Your task to perform on an android device: toggle priority inbox in the gmail app Image 0: 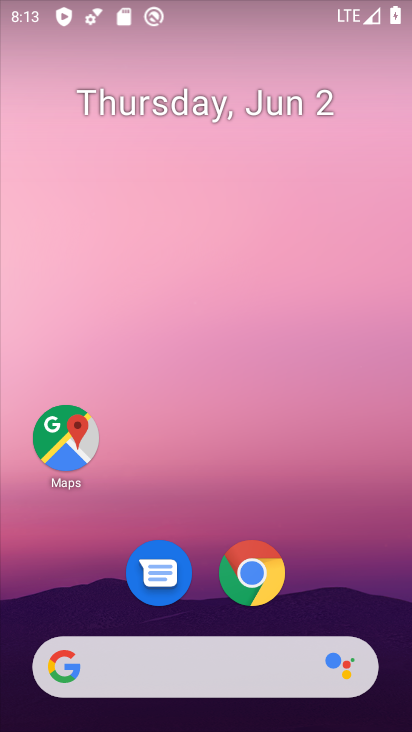
Step 0: drag from (336, 521) to (284, 7)
Your task to perform on an android device: toggle priority inbox in the gmail app Image 1: 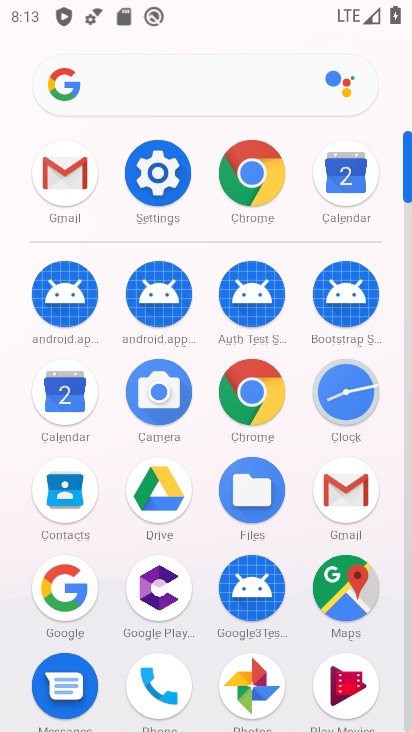
Step 1: click (58, 199)
Your task to perform on an android device: toggle priority inbox in the gmail app Image 2: 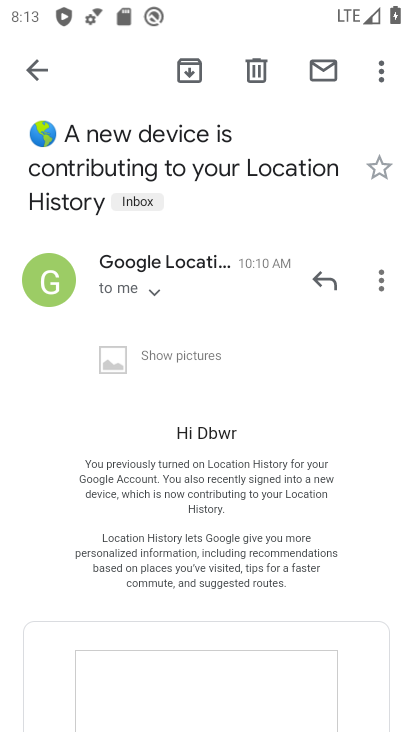
Step 2: press home button
Your task to perform on an android device: toggle priority inbox in the gmail app Image 3: 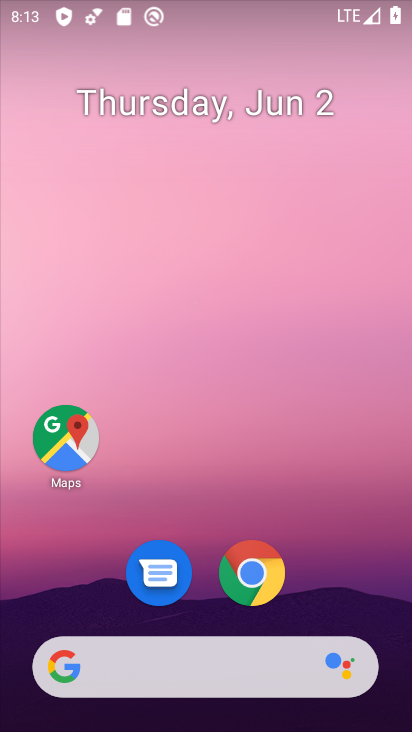
Step 3: drag from (325, 575) to (235, 8)
Your task to perform on an android device: toggle priority inbox in the gmail app Image 4: 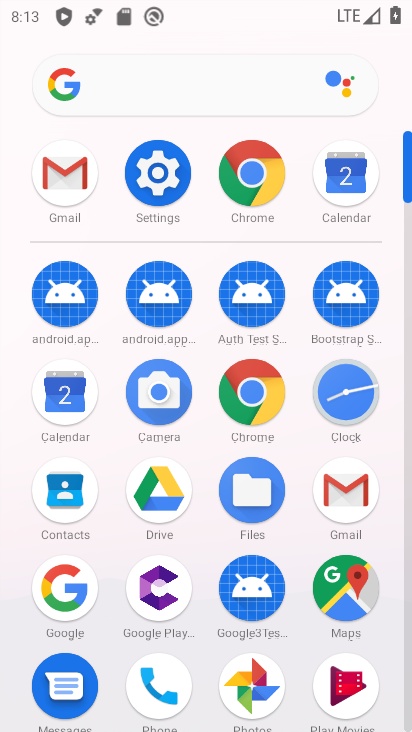
Step 4: click (63, 220)
Your task to perform on an android device: toggle priority inbox in the gmail app Image 5: 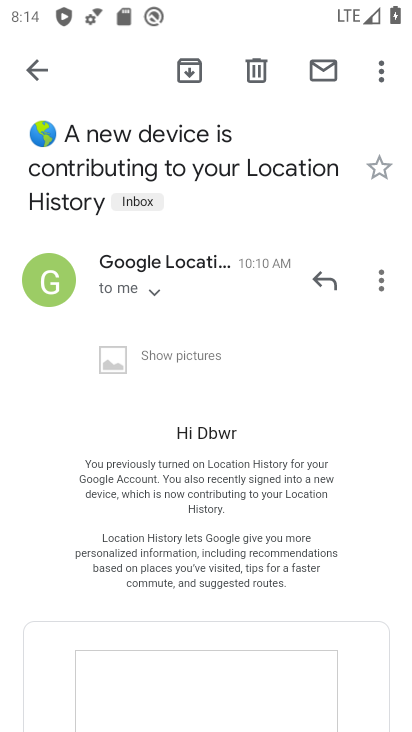
Step 5: click (26, 78)
Your task to perform on an android device: toggle priority inbox in the gmail app Image 6: 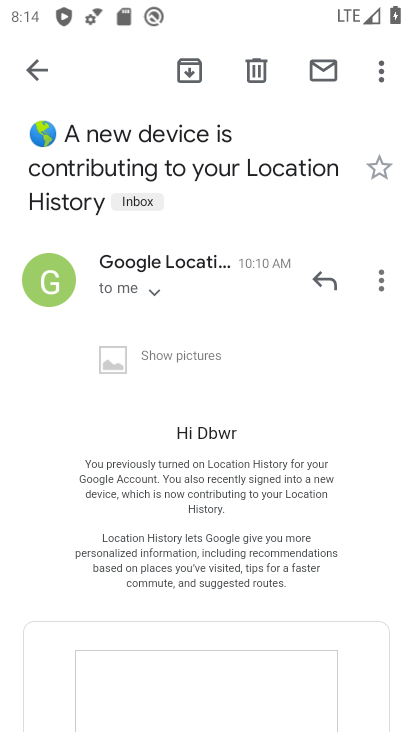
Step 6: click (28, 86)
Your task to perform on an android device: toggle priority inbox in the gmail app Image 7: 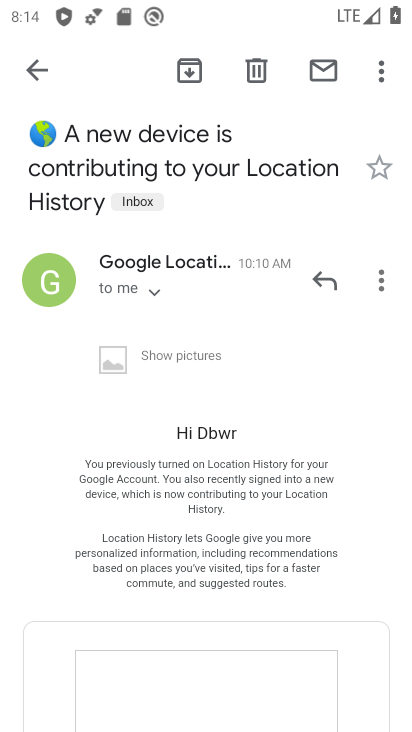
Step 7: click (28, 72)
Your task to perform on an android device: toggle priority inbox in the gmail app Image 8: 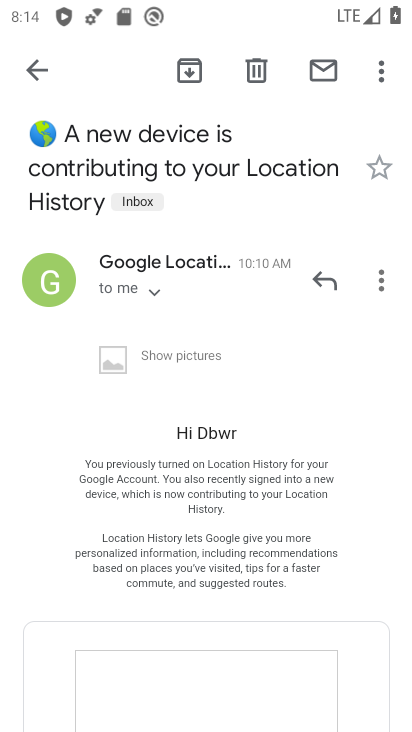
Step 8: click (37, 68)
Your task to perform on an android device: toggle priority inbox in the gmail app Image 9: 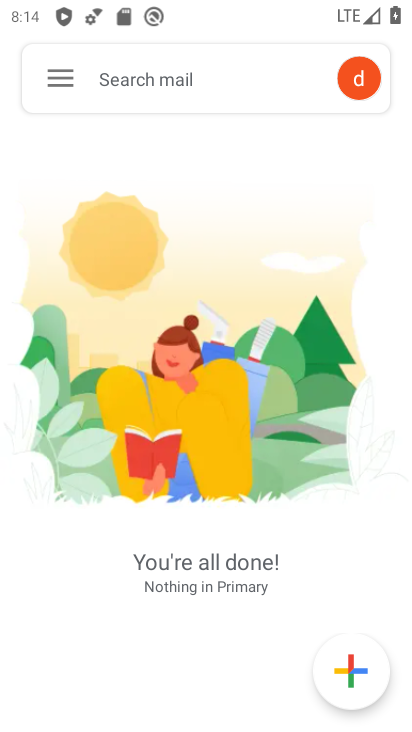
Step 9: click (73, 83)
Your task to perform on an android device: toggle priority inbox in the gmail app Image 10: 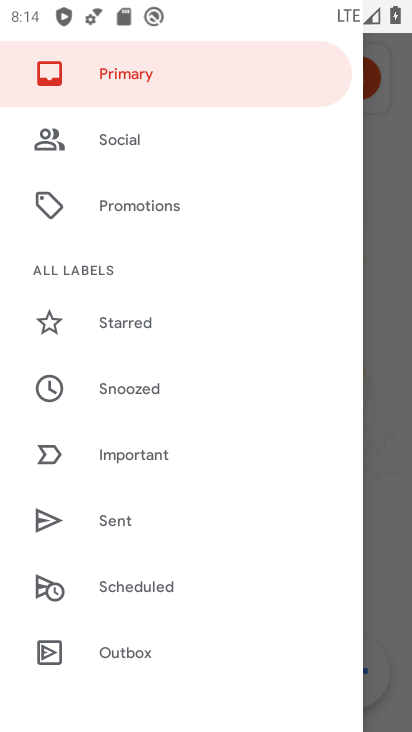
Step 10: drag from (181, 578) to (200, 41)
Your task to perform on an android device: toggle priority inbox in the gmail app Image 11: 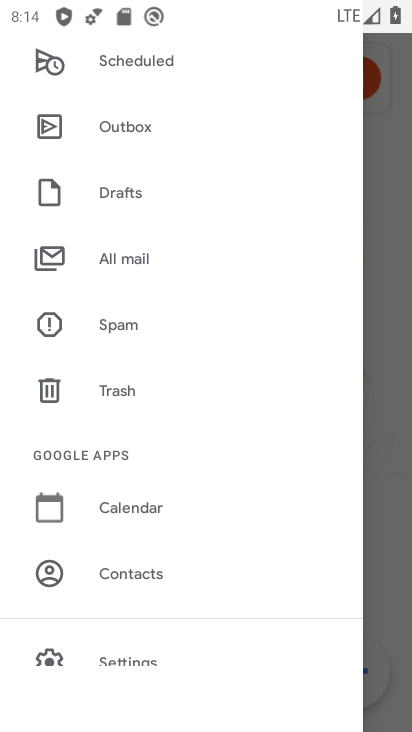
Step 11: drag from (158, 588) to (196, 18)
Your task to perform on an android device: toggle priority inbox in the gmail app Image 12: 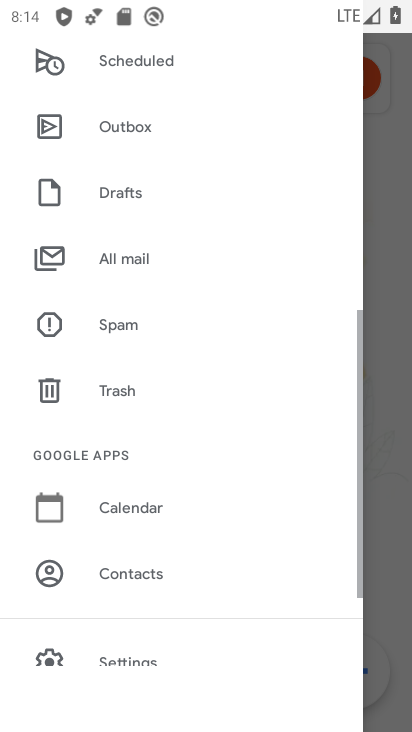
Step 12: drag from (121, 548) to (108, 23)
Your task to perform on an android device: toggle priority inbox in the gmail app Image 13: 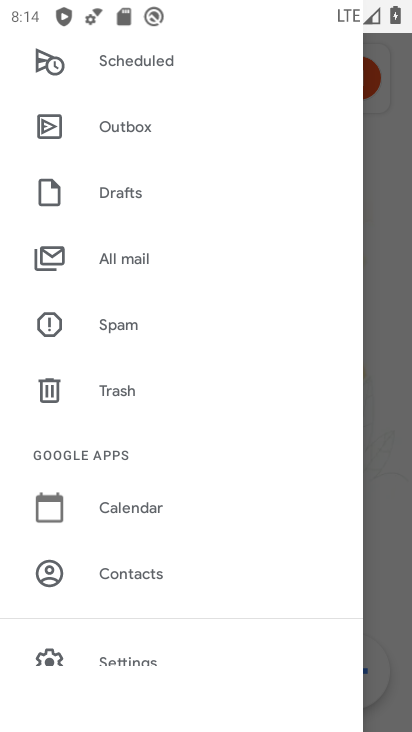
Step 13: drag from (162, 593) to (90, 118)
Your task to perform on an android device: toggle priority inbox in the gmail app Image 14: 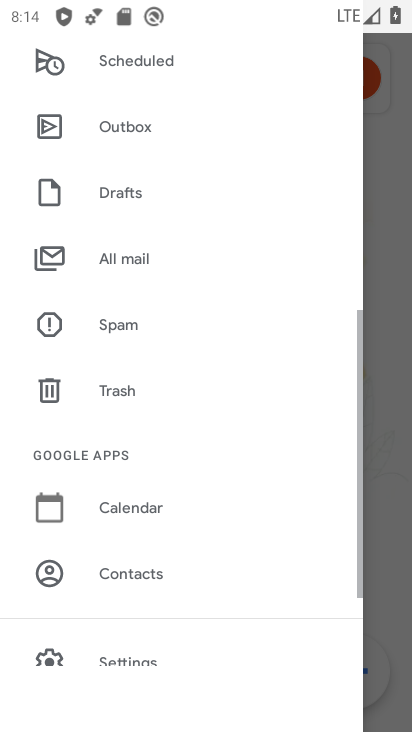
Step 14: click (101, 662)
Your task to perform on an android device: toggle priority inbox in the gmail app Image 15: 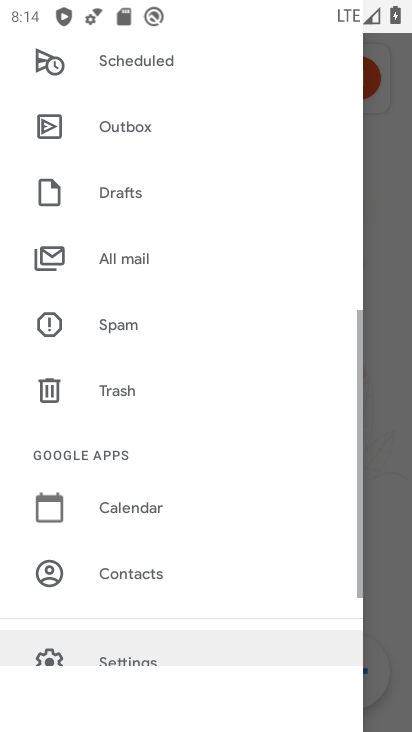
Step 15: click (101, 662)
Your task to perform on an android device: toggle priority inbox in the gmail app Image 16: 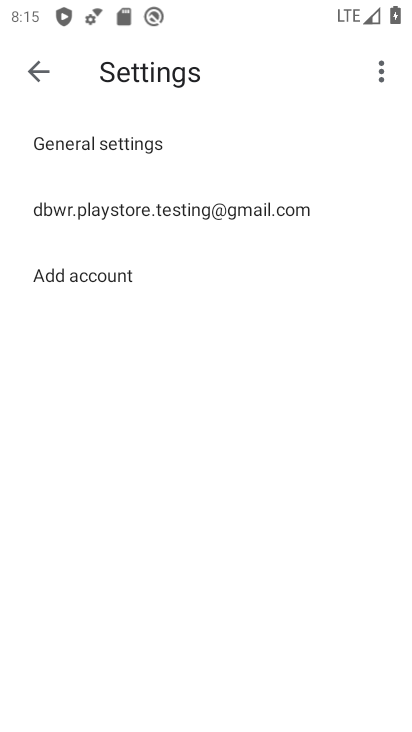
Step 16: click (47, 67)
Your task to perform on an android device: toggle priority inbox in the gmail app Image 17: 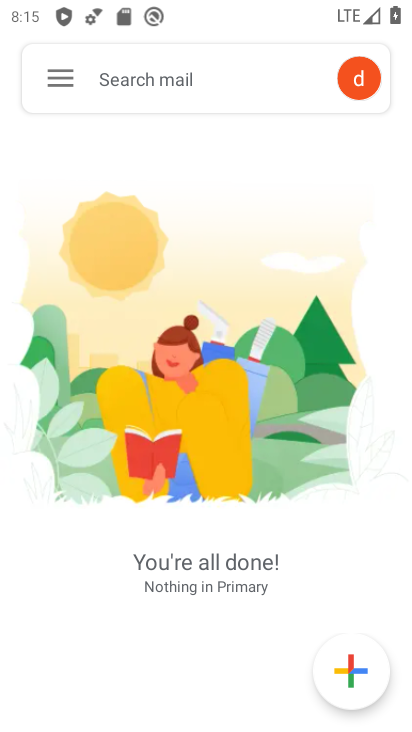
Step 17: click (62, 69)
Your task to perform on an android device: toggle priority inbox in the gmail app Image 18: 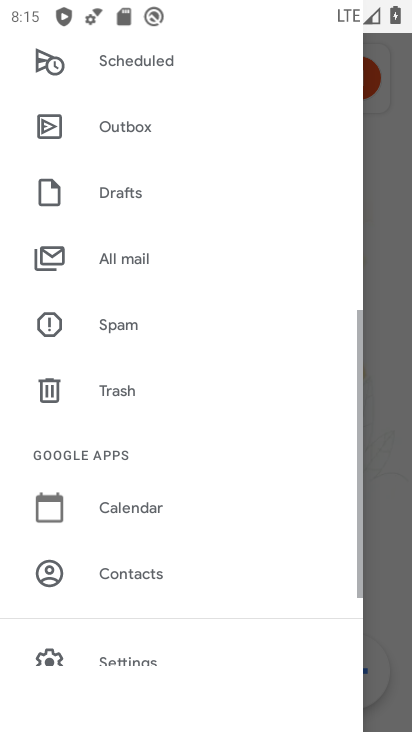
Step 18: drag from (166, 606) to (260, 105)
Your task to perform on an android device: toggle priority inbox in the gmail app Image 19: 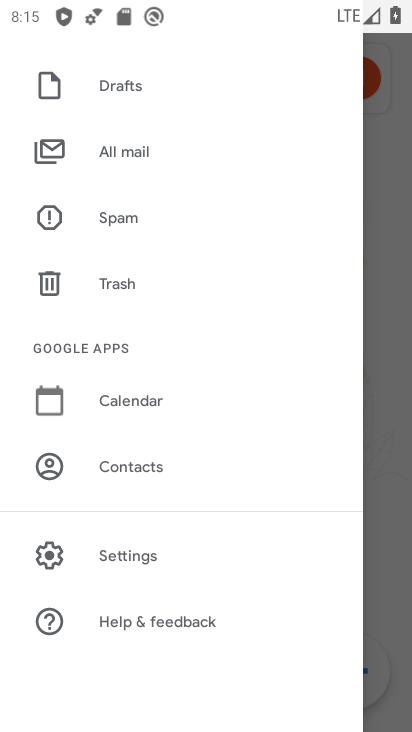
Step 19: click (106, 562)
Your task to perform on an android device: toggle priority inbox in the gmail app Image 20: 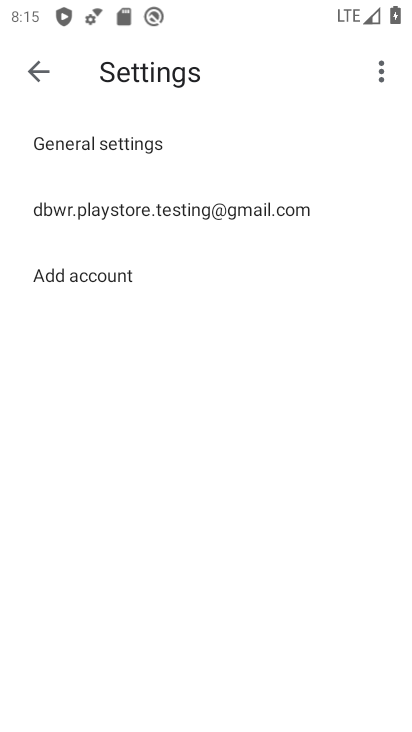
Step 20: click (46, 201)
Your task to perform on an android device: toggle priority inbox in the gmail app Image 21: 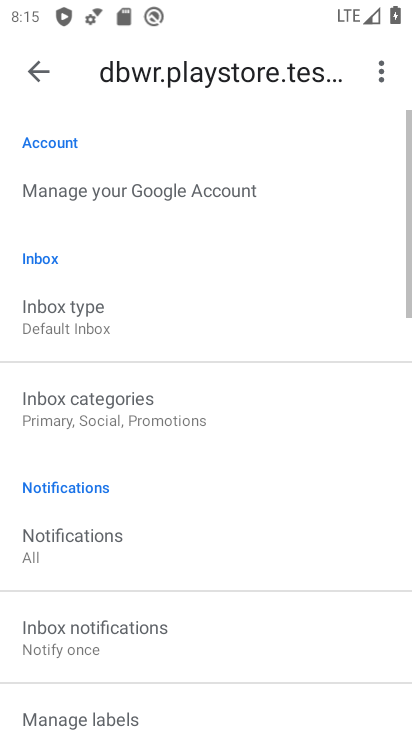
Step 21: click (81, 339)
Your task to perform on an android device: toggle priority inbox in the gmail app Image 22: 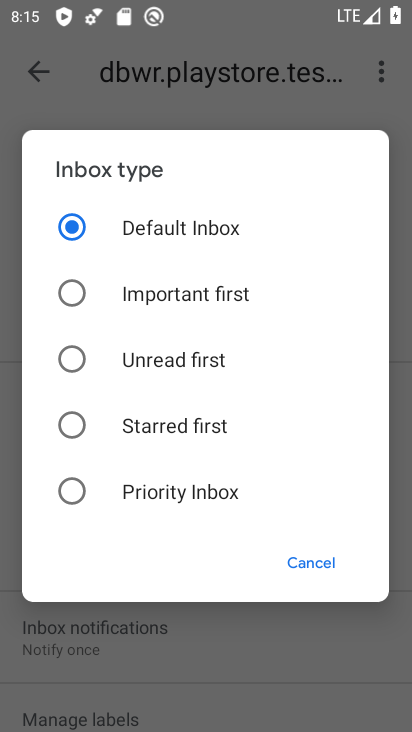
Step 22: click (88, 488)
Your task to perform on an android device: toggle priority inbox in the gmail app Image 23: 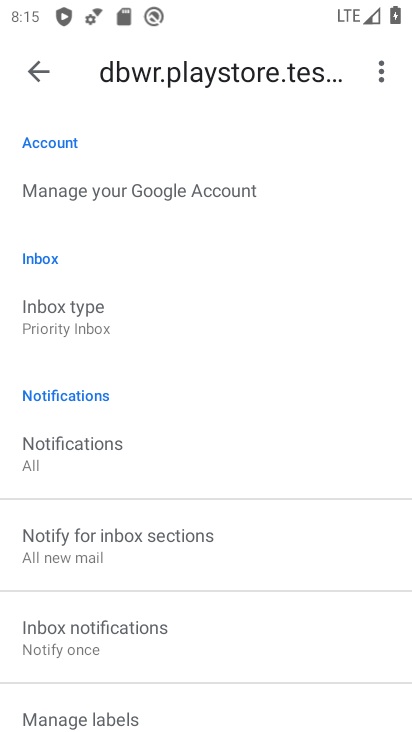
Step 23: task complete